Your task to perform on an android device: Search for macbook pro on costco.com, select the first entry, and add it to the cart. Image 0: 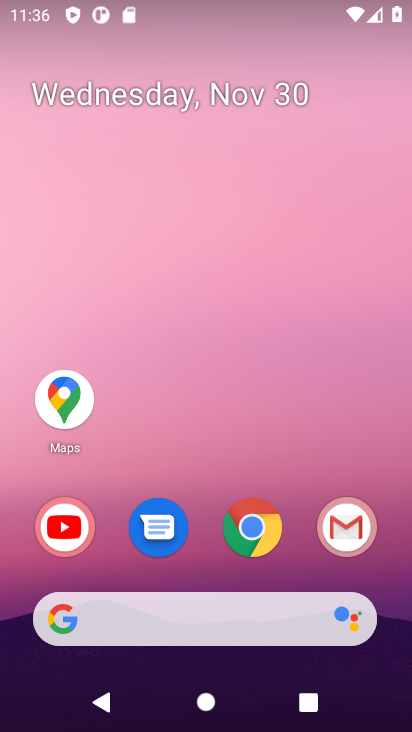
Step 0: click (263, 524)
Your task to perform on an android device: Search for macbook pro on costco.com, select the first entry, and add it to the cart. Image 1: 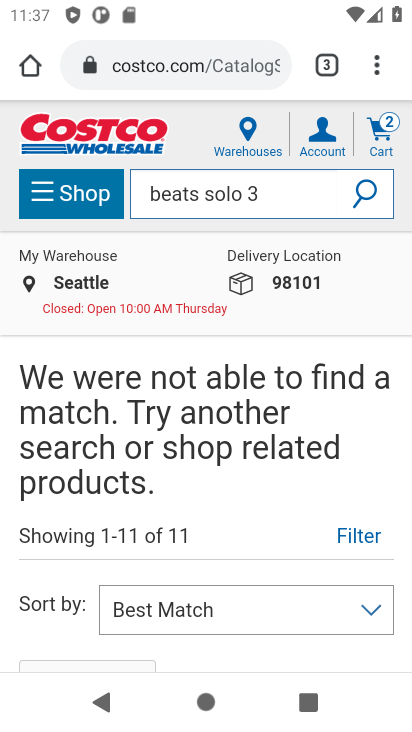
Step 1: click (254, 198)
Your task to perform on an android device: Search for macbook pro on costco.com, select the first entry, and add it to the cart. Image 2: 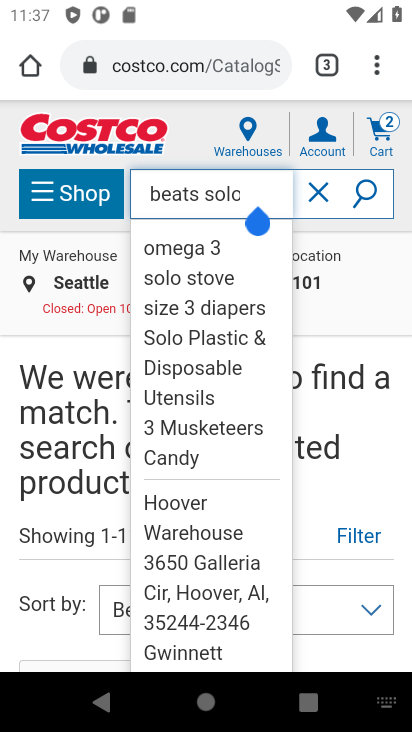
Step 2: click (316, 196)
Your task to perform on an android device: Search for macbook pro on costco.com, select the first entry, and add it to the cart. Image 3: 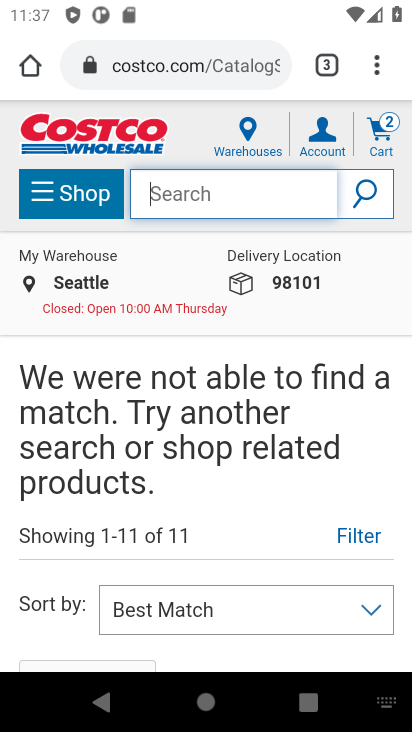
Step 3: type "macbook pro"
Your task to perform on an android device: Search for macbook pro on costco.com, select the first entry, and add it to the cart. Image 4: 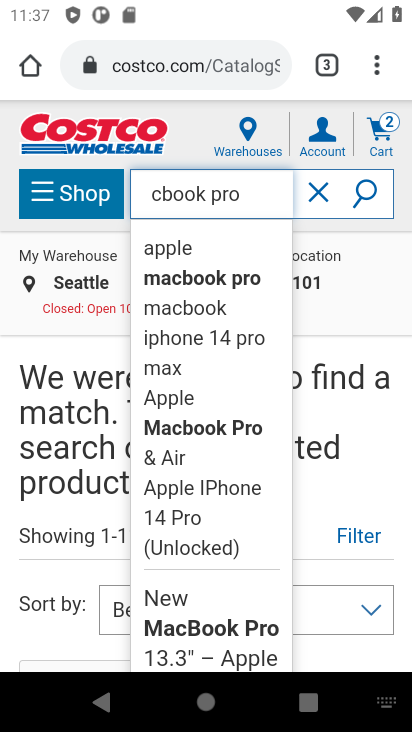
Step 4: click (371, 201)
Your task to perform on an android device: Search for macbook pro on costco.com, select the first entry, and add it to the cart. Image 5: 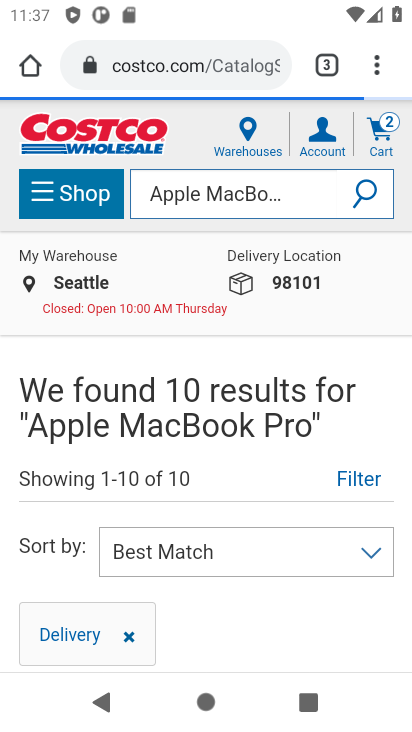
Step 5: drag from (294, 477) to (261, 222)
Your task to perform on an android device: Search for macbook pro on costco.com, select the first entry, and add it to the cart. Image 6: 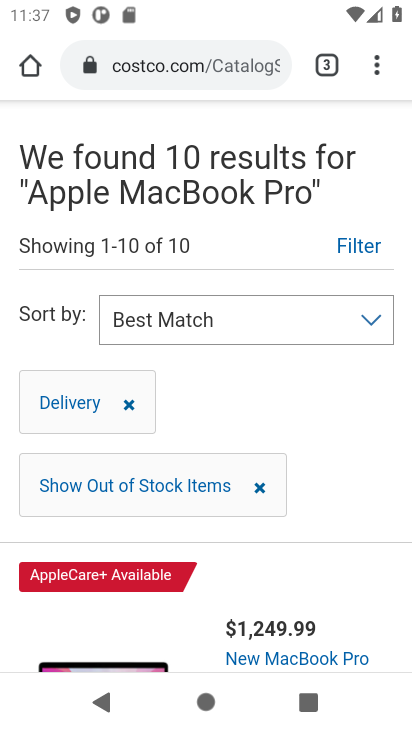
Step 6: drag from (262, 497) to (227, 181)
Your task to perform on an android device: Search for macbook pro on costco.com, select the first entry, and add it to the cart. Image 7: 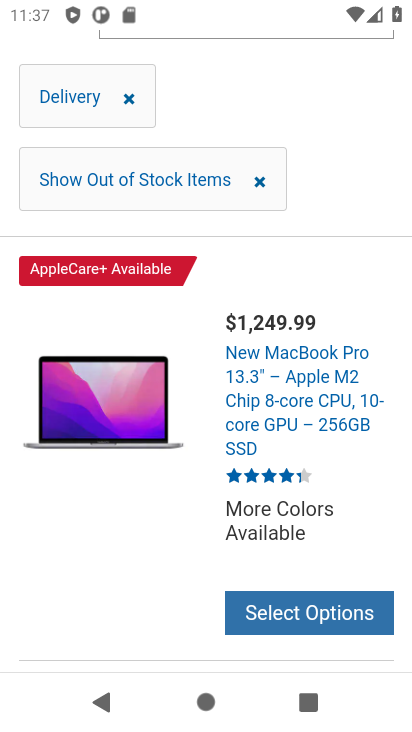
Step 7: click (230, 422)
Your task to perform on an android device: Search for macbook pro on costco.com, select the first entry, and add it to the cart. Image 8: 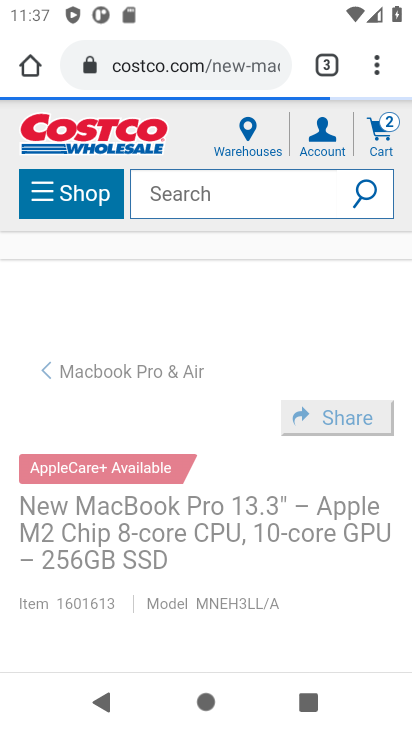
Step 8: drag from (214, 569) to (194, 380)
Your task to perform on an android device: Search for macbook pro on costco.com, select the first entry, and add it to the cart. Image 9: 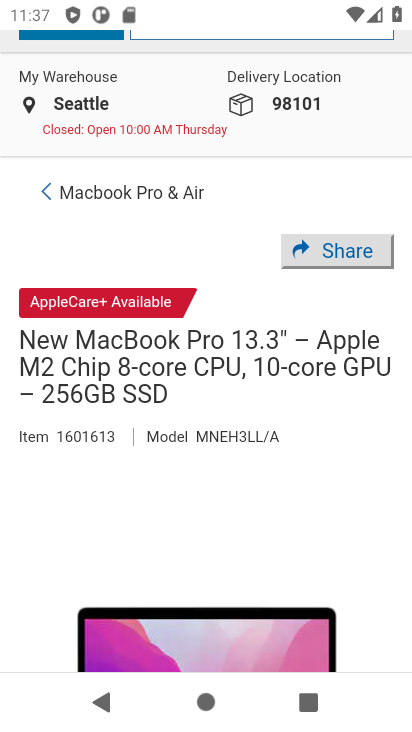
Step 9: drag from (197, 490) to (178, 286)
Your task to perform on an android device: Search for macbook pro on costco.com, select the first entry, and add it to the cart. Image 10: 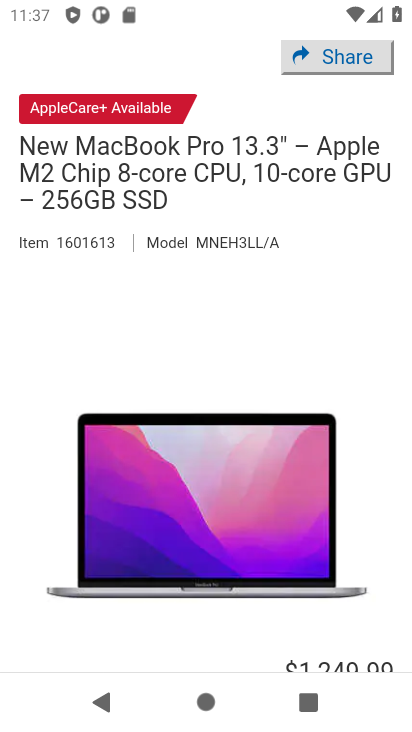
Step 10: drag from (203, 489) to (182, 280)
Your task to perform on an android device: Search for macbook pro on costco.com, select the first entry, and add it to the cart. Image 11: 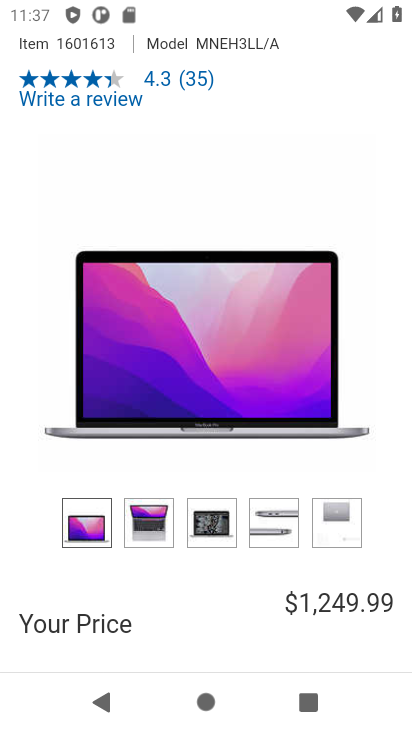
Step 11: drag from (197, 483) to (153, 148)
Your task to perform on an android device: Search for macbook pro on costco.com, select the first entry, and add it to the cart. Image 12: 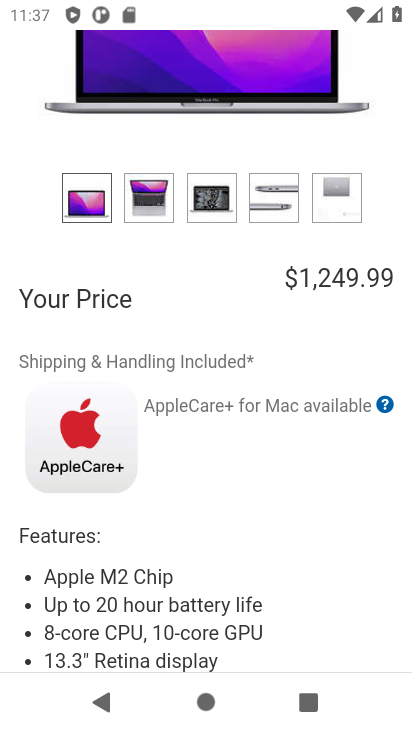
Step 12: drag from (186, 442) to (160, 235)
Your task to perform on an android device: Search for macbook pro on costco.com, select the first entry, and add it to the cart. Image 13: 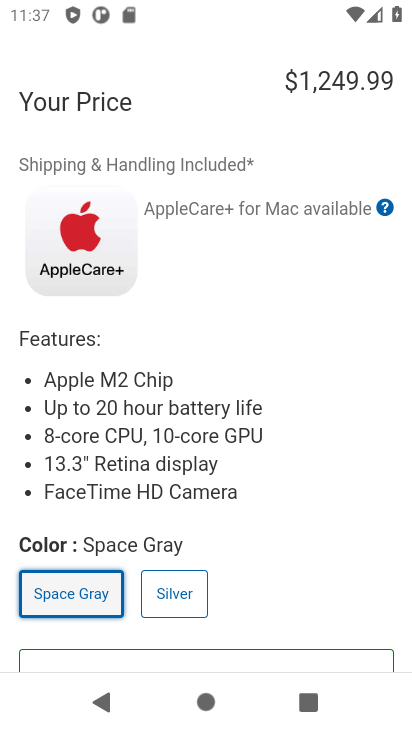
Step 13: drag from (201, 502) to (170, 280)
Your task to perform on an android device: Search for macbook pro on costco.com, select the first entry, and add it to the cart. Image 14: 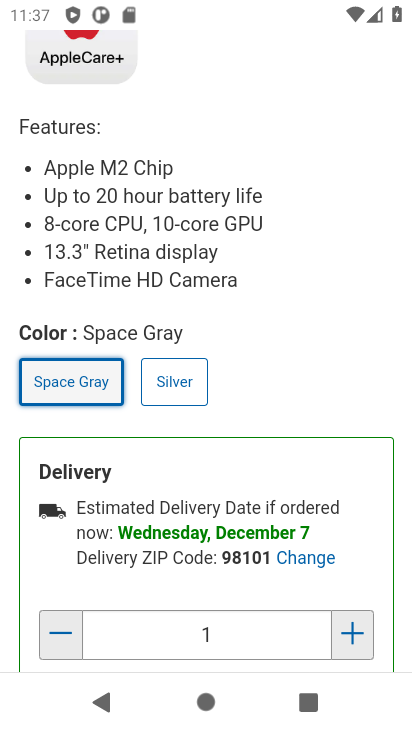
Step 14: drag from (193, 462) to (171, 214)
Your task to perform on an android device: Search for macbook pro on costco.com, select the first entry, and add it to the cart. Image 15: 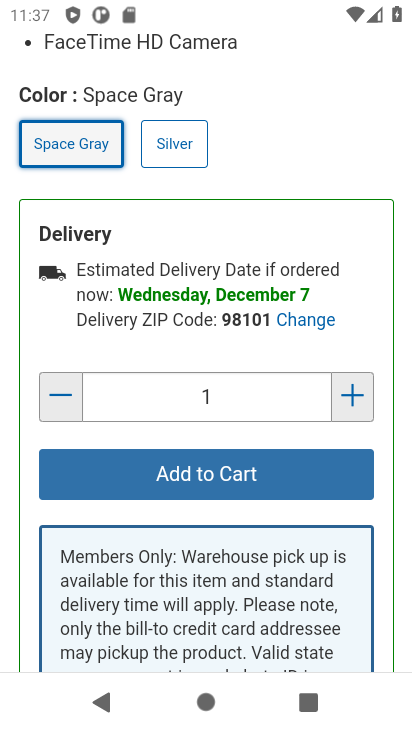
Step 15: click (187, 484)
Your task to perform on an android device: Search for macbook pro on costco.com, select the first entry, and add it to the cart. Image 16: 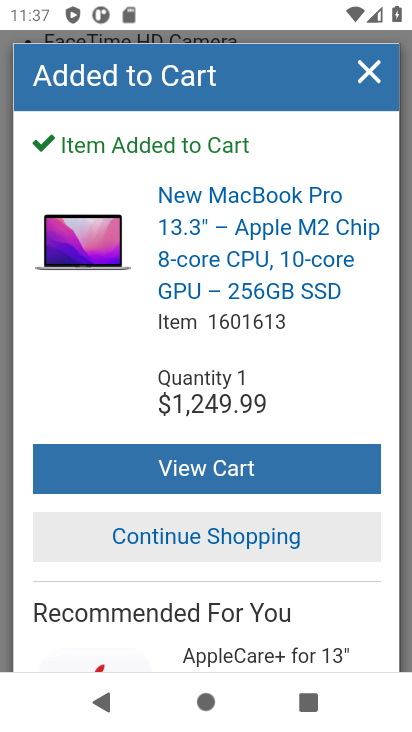
Step 16: task complete